Your task to perform on an android device: find photos in the google photos app Image 0: 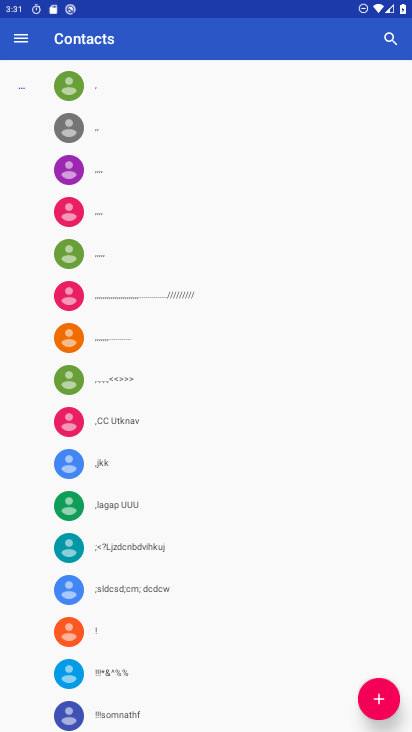
Step 0: press home button
Your task to perform on an android device: find photos in the google photos app Image 1: 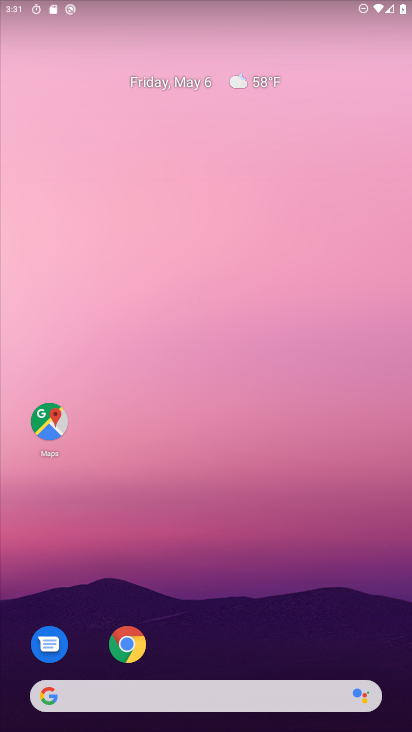
Step 1: drag from (252, 730) to (261, 301)
Your task to perform on an android device: find photos in the google photos app Image 2: 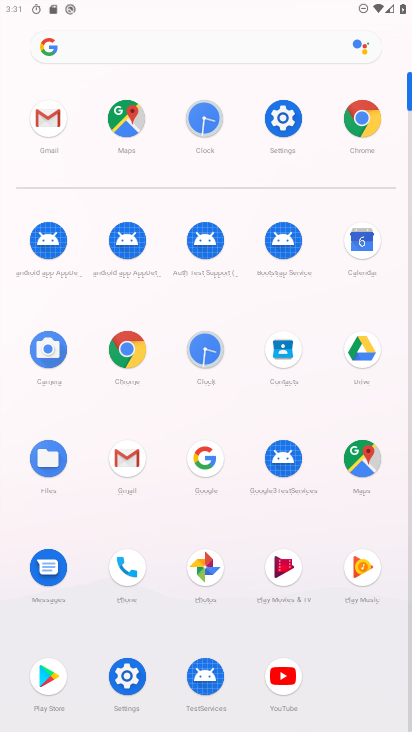
Step 2: click (208, 565)
Your task to perform on an android device: find photos in the google photos app Image 3: 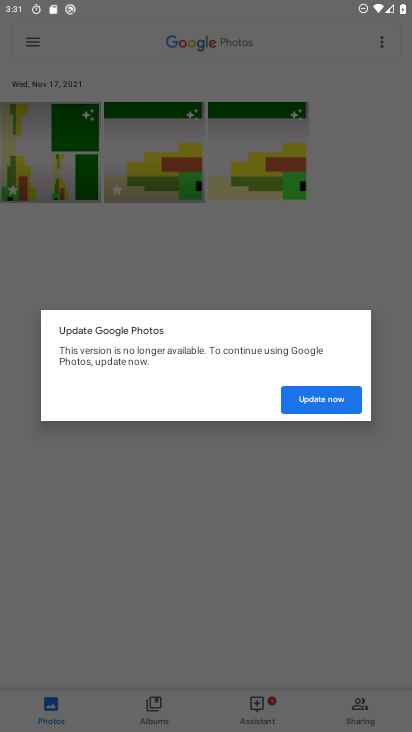
Step 3: click (42, 149)
Your task to perform on an android device: find photos in the google photos app Image 4: 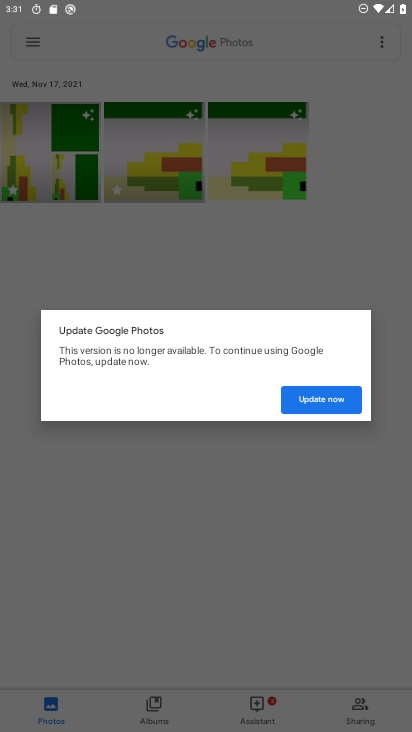
Step 4: click (334, 400)
Your task to perform on an android device: find photos in the google photos app Image 5: 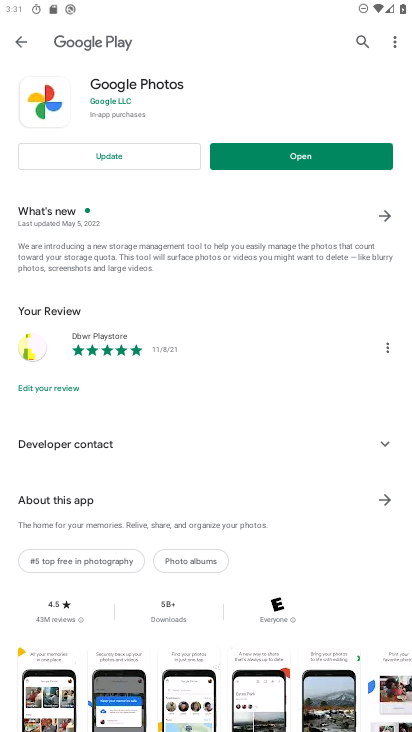
Step 5: click (105, 154)
Your task to perform on an android device: find photos in the google photos app Image 6: 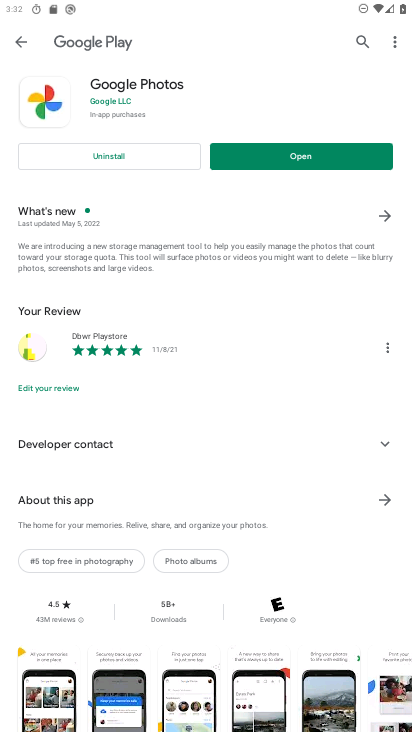
Step 6: click (279, 159)
Your task to perform on an android device: find photos in the google photos app Image 7: 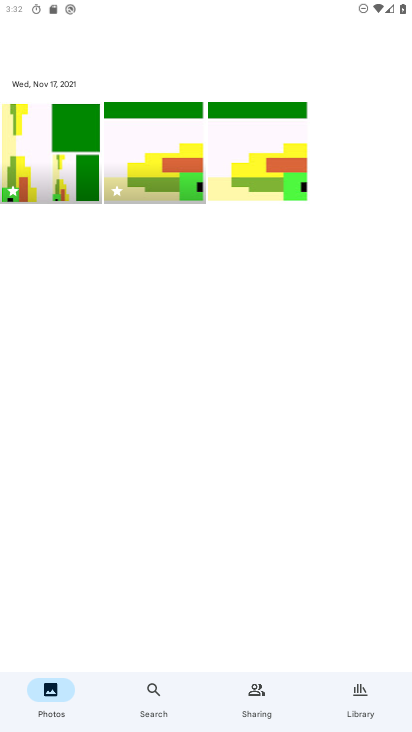
Step 7: click (46, 168)
Your task to perform on an android device: find photos in the google photos app Image 8: 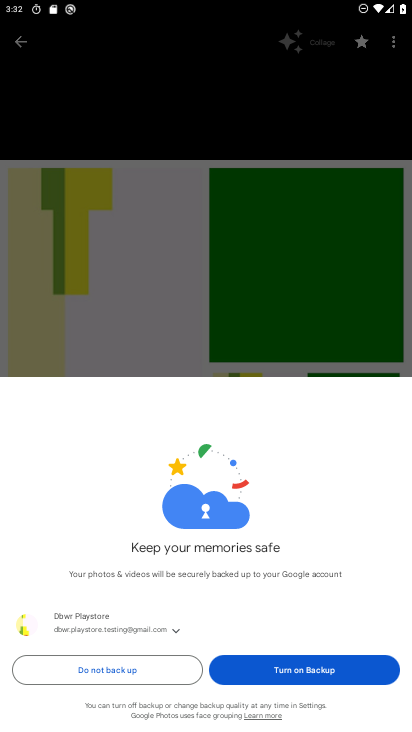
Step 8: task complete